Your task to perform on an android device: toggle wifi Image 0: 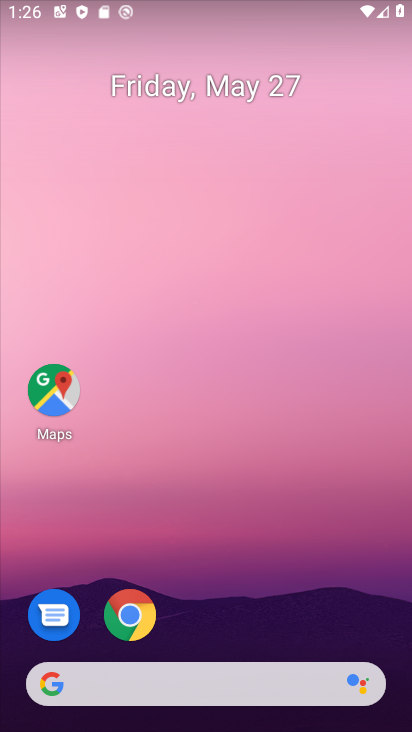
Step 0: drag from (216, 666) to (277, 256)
Your task to perform on an android device: toggle wifi Image 1: 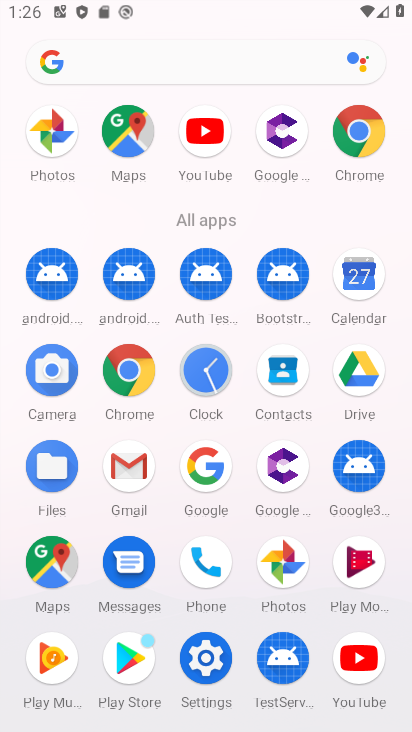
Step 1: click (210, 657)
Your task to perform on an android device: toggle wifi Image 2: 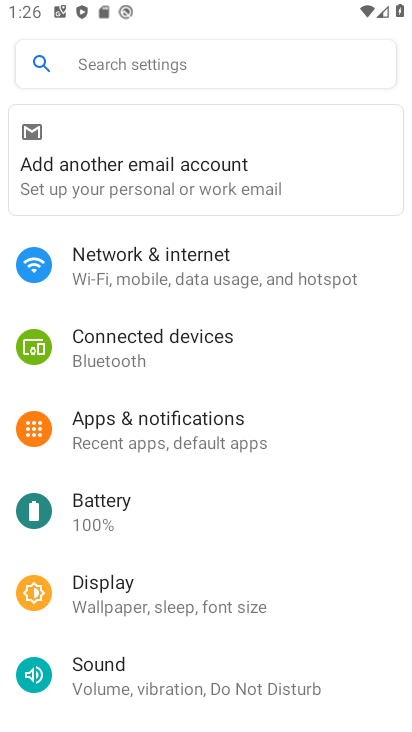
Step 2: click (159, 272)
Your task to perform on an android device: toggle wifi Image 3: 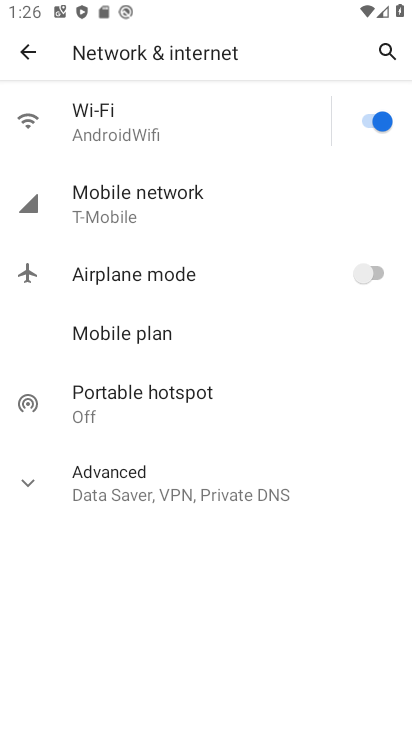
Step 3: click (376, 118)
Your task to perform on an android device: toggle wifi Image 4: 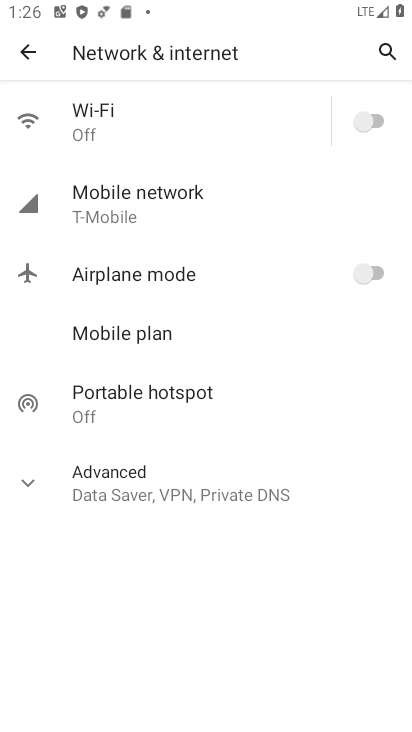
Step 4: task complete